Your task to perform on an android device: Open Reddit.com Image 0: 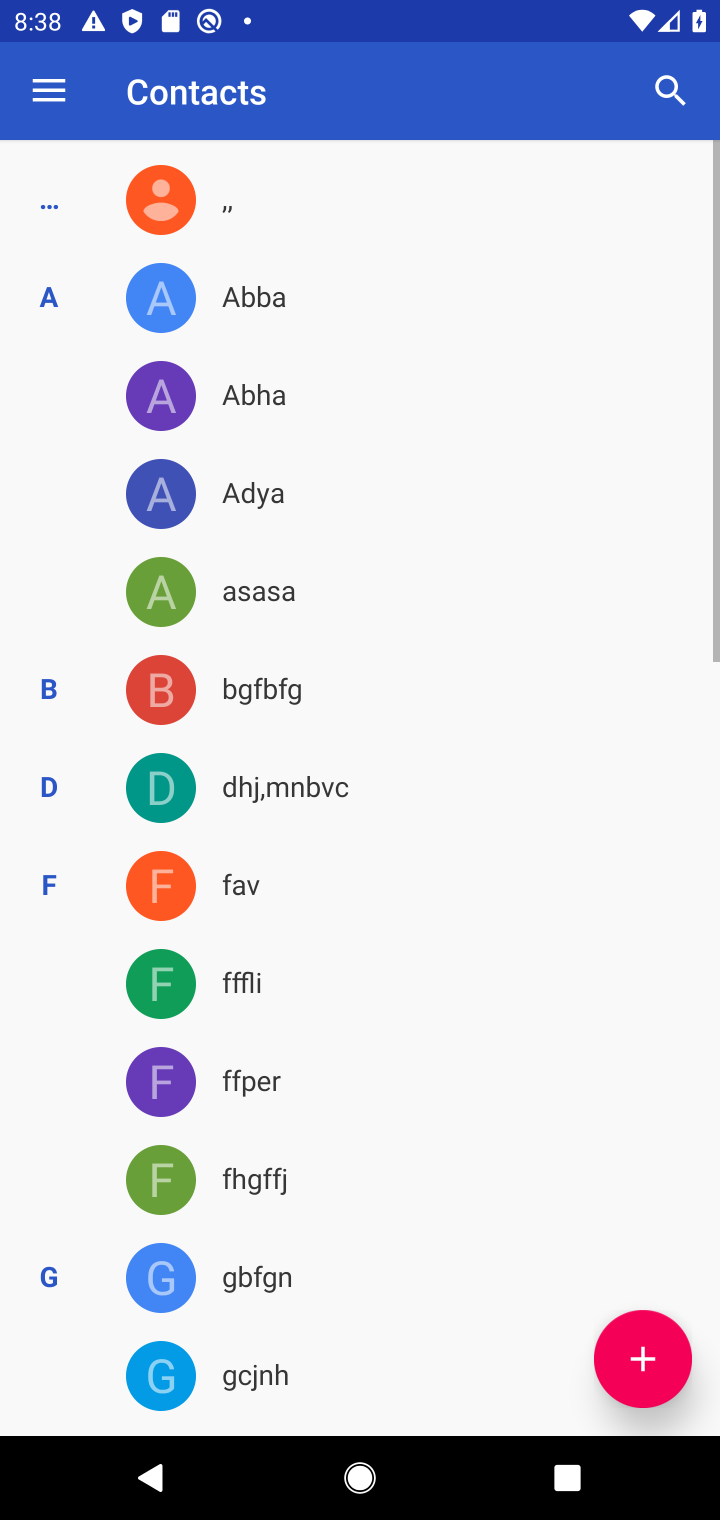
Step 0: press home button
Your task to perform on an android device: Open Reddit.com Image 1: 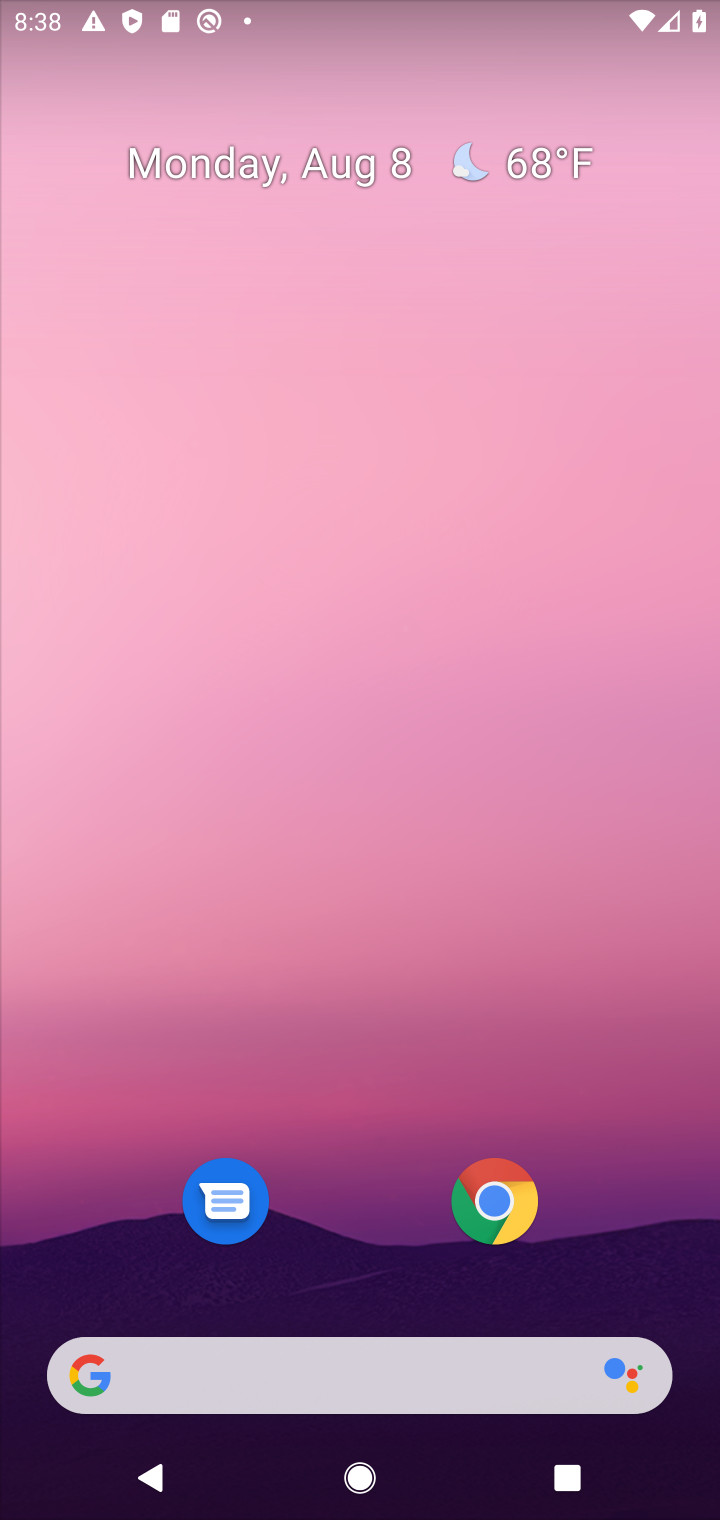
Step 1: drag from (599, 1228) to (634, 261)
Your task to perform on an android device: Open Reddit.com Image 2: 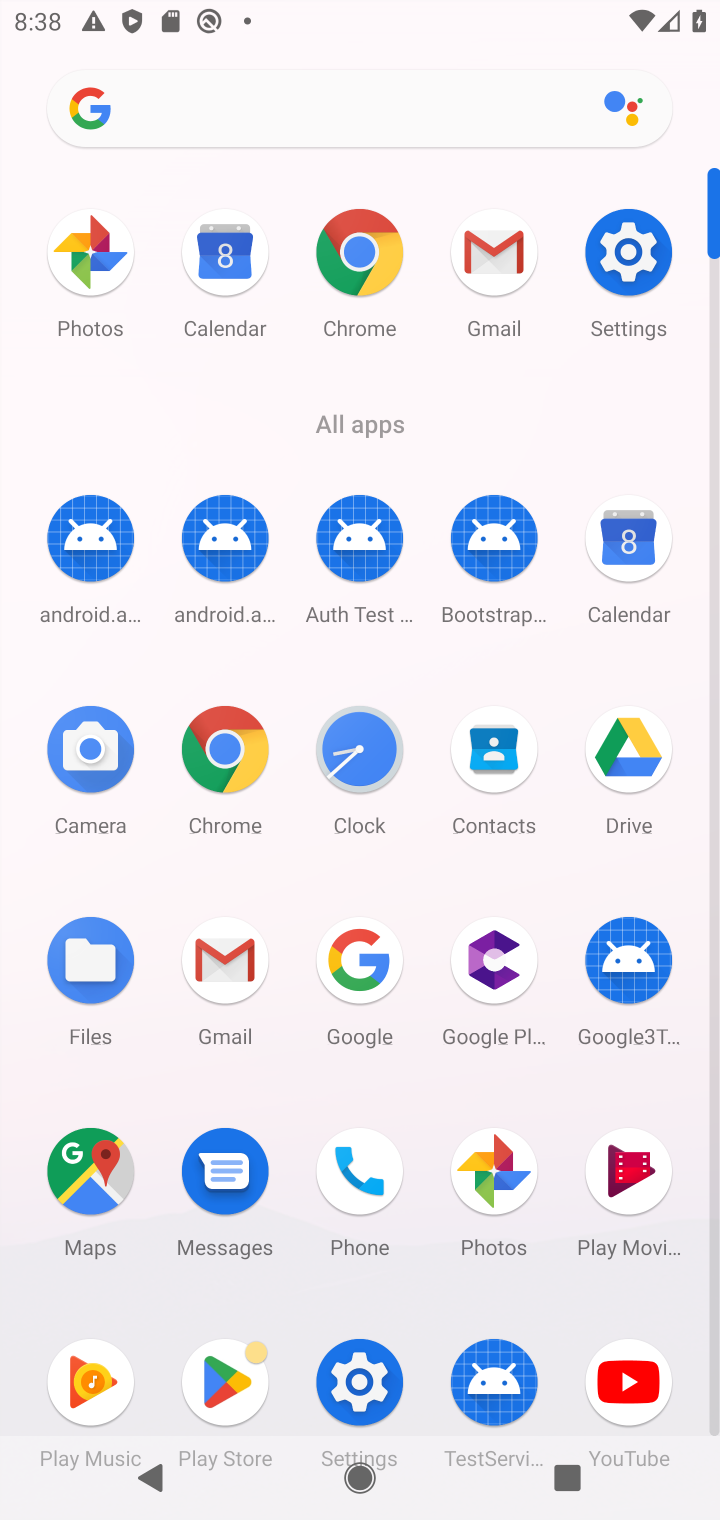
Step 2: click (222, 756)
Your task to perform on an android device: Open Reddit.com Image 3: 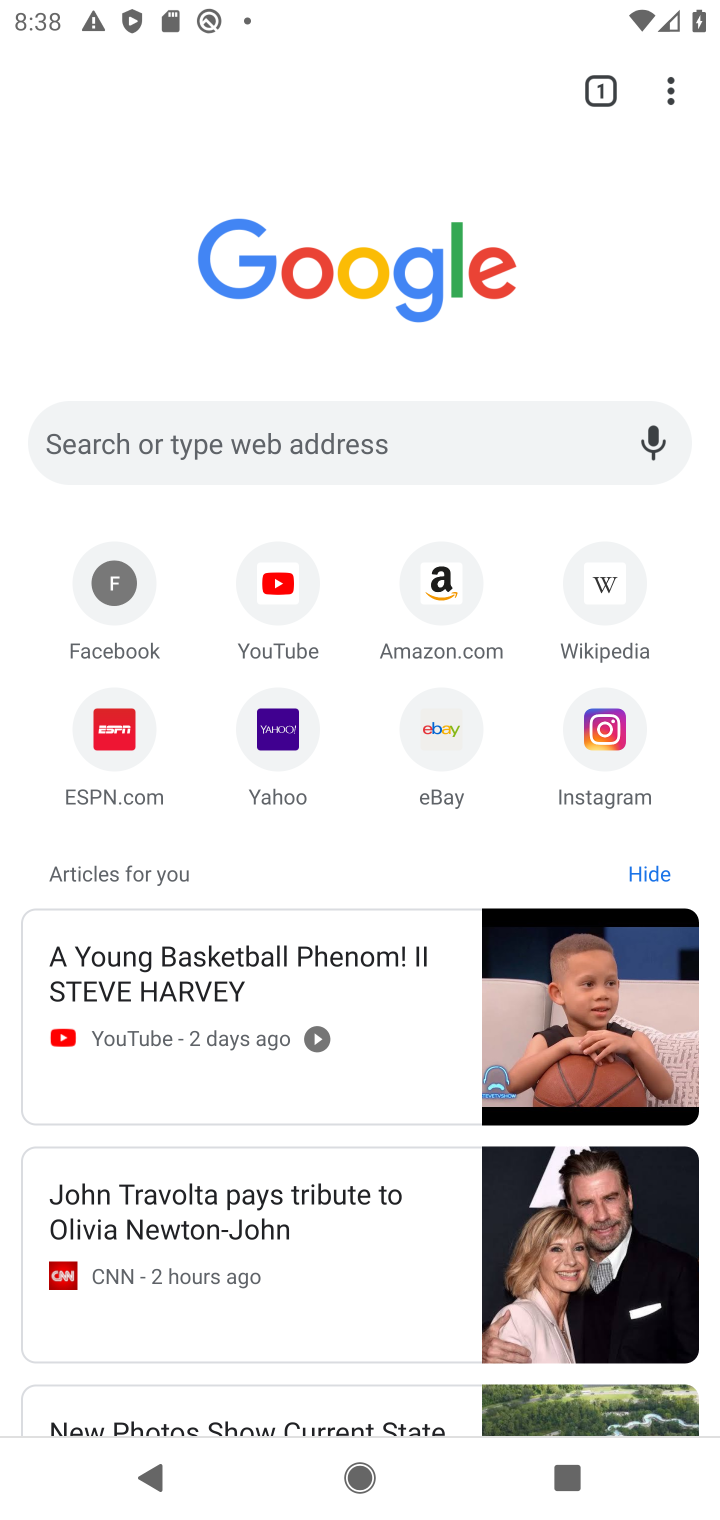
Step 3: click (369, 441)
Your task to perform on an android device: Open Reddit.com Image 4: 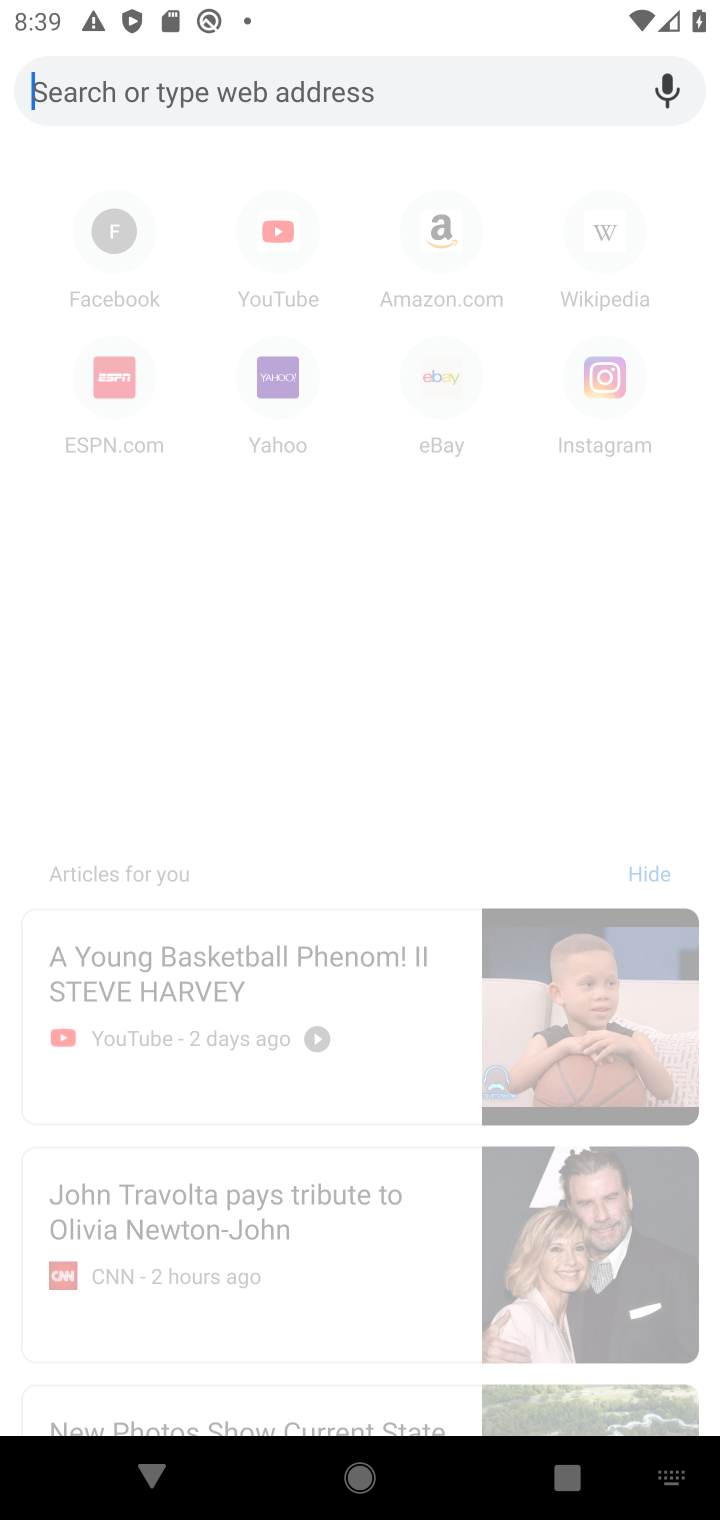
Step 4: type "reddit.com"
Your task to perform on an android device: Open Reddit.com Image 5: 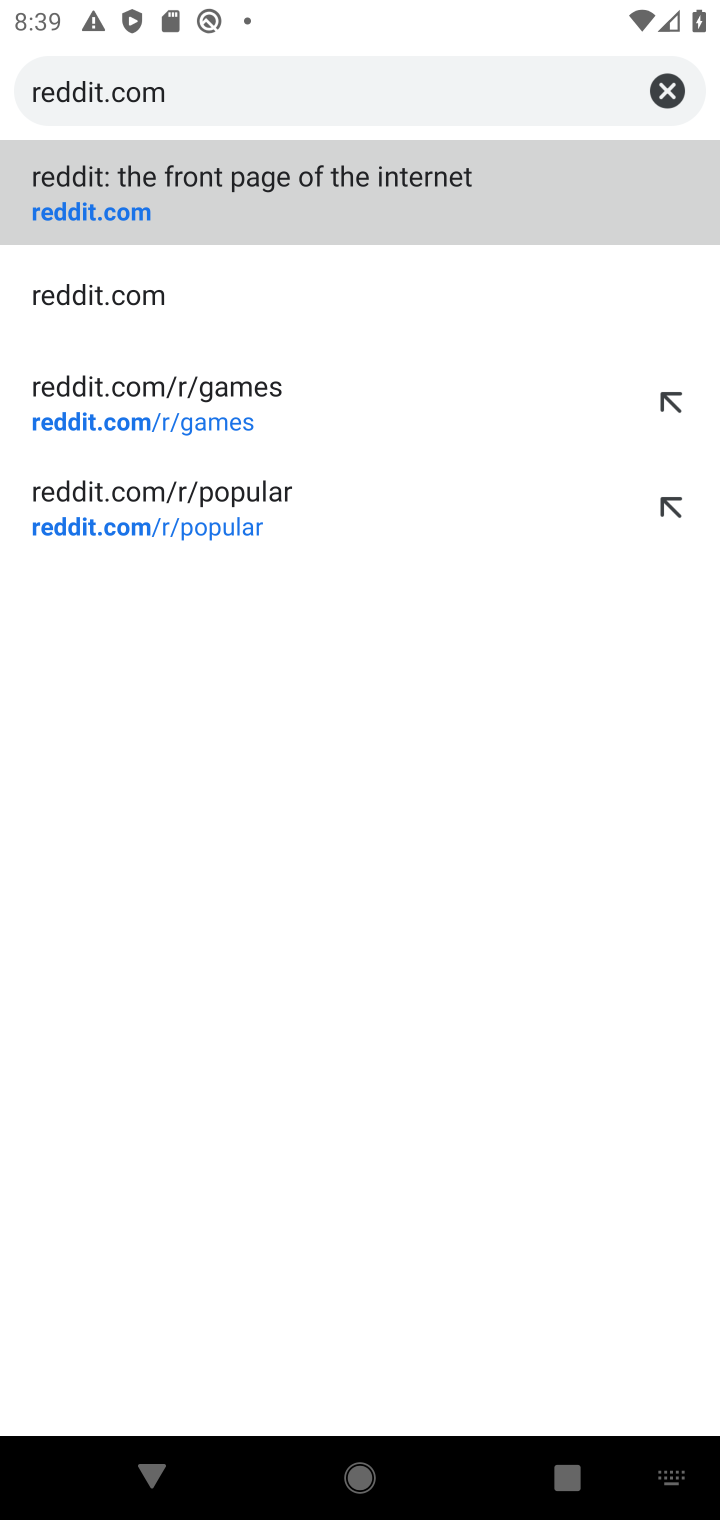
Step 5: click (325, 199)
Your task to perform on an android device: Open Reddit.com Image 6: 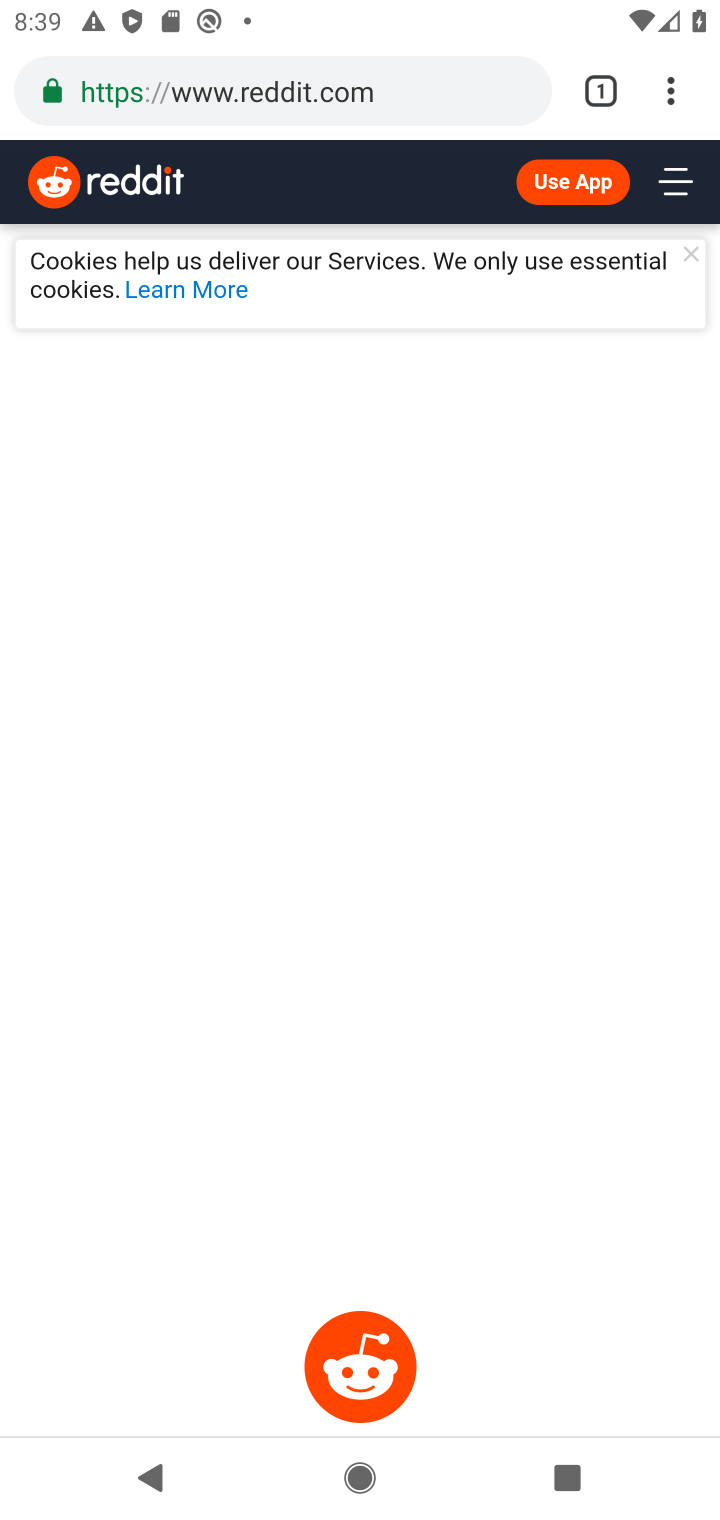
Step 6: task complete